Your task to perform on an android device: What is the recent news? Image 0: 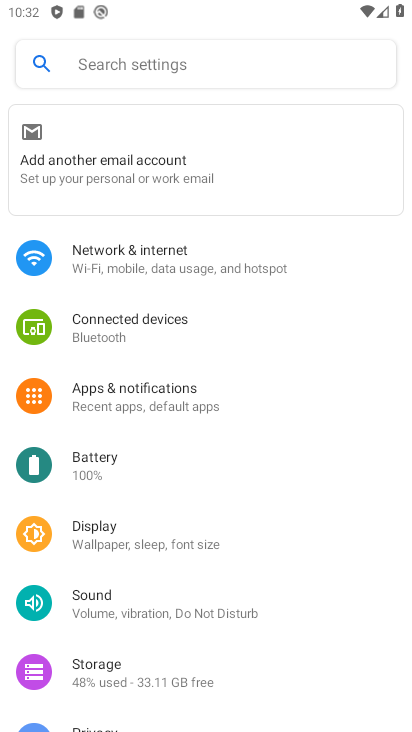
Step 0: press home button
Your task to perform on an android device: What is the recent news? Image 1: 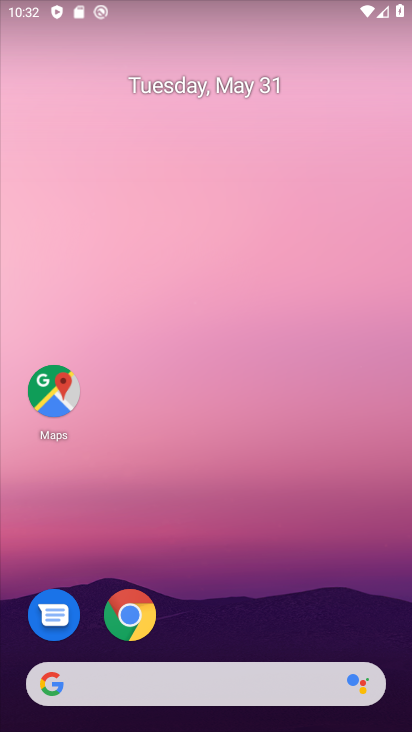
Step 1: click (177, 672)
Your task to perform on an android device: What is the recent news? Image 2: 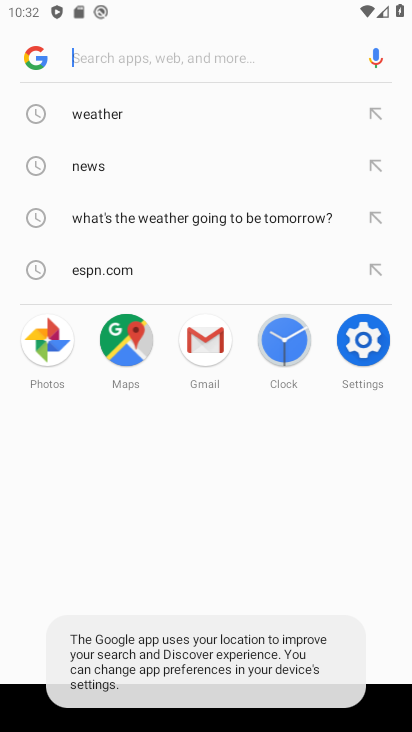
Step 2: click (185, 61)
Your task to perform on an android device: What is the recent news? Image 3: 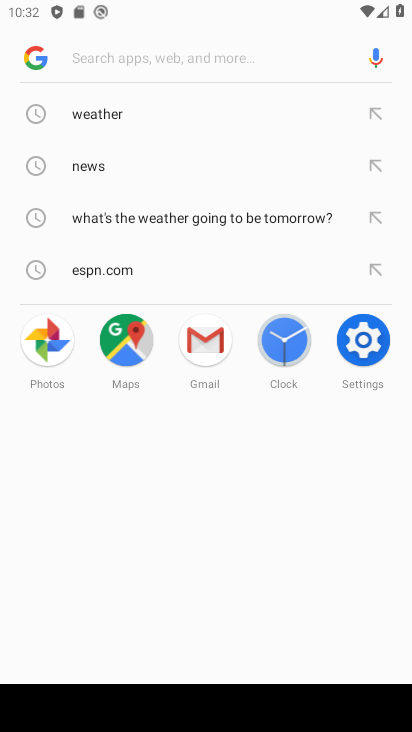
Step 3: type "recent news"
Your task to perform on an android device: What is the recent news? Image 4: 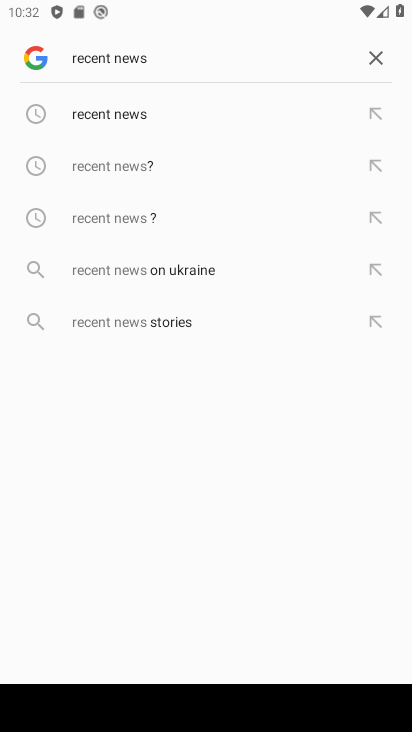
Step 4: click (92, 115)
Your task to perform on an android device: What is the recent news? Image 5: 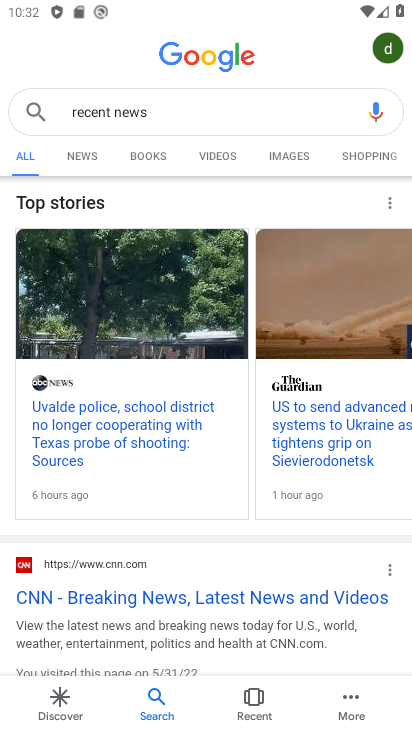
Step 5: task complete